Your task to perform on an android device: turn notification dots off Image 0: 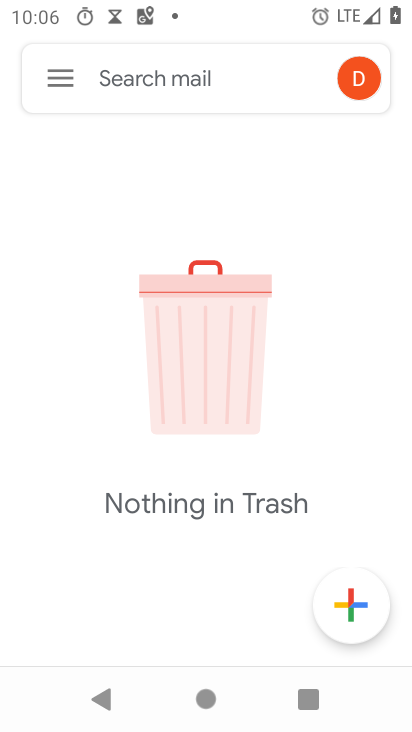
Step 0: press home button
Your task to perform on an android device: turn notification dots off Image 1: 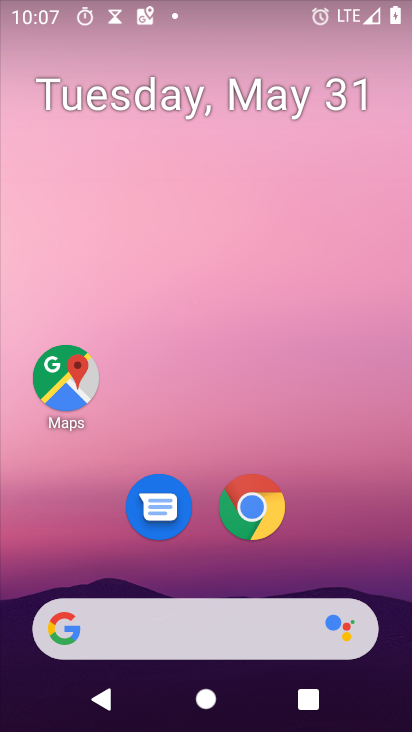
Step 1: drag from (13, 656) to (210, 155)
Your task to perform on an android device: turn notification dots off Image 2: 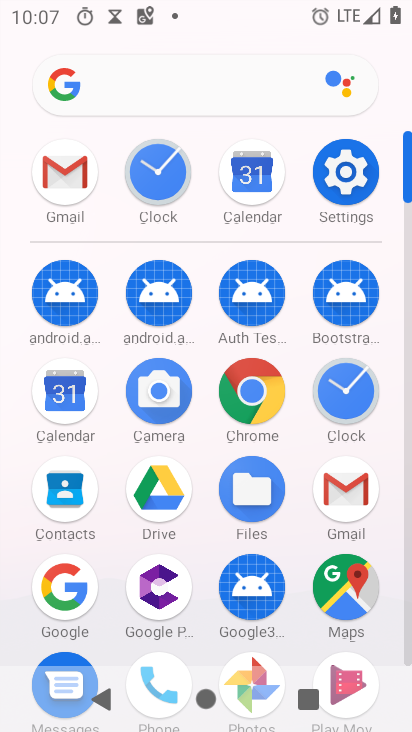
Step 2: click (331, 172)
Your task to perform on an android device: turn notification dots off Image 3: 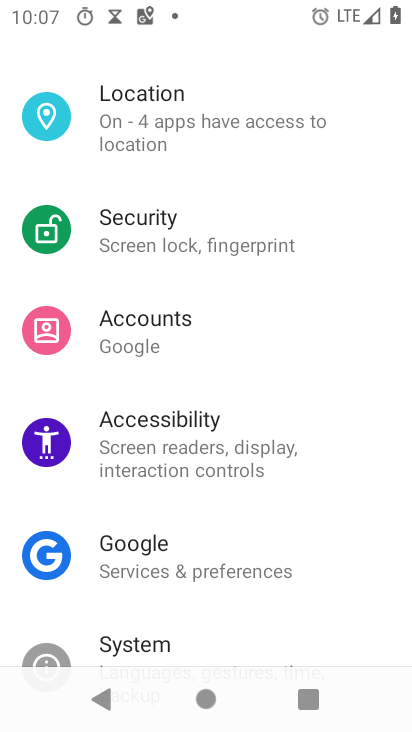
Step 3: drag from (198, 85) to (169, 504)
Your task to perform on an android device: turn notification dots off Image 4: 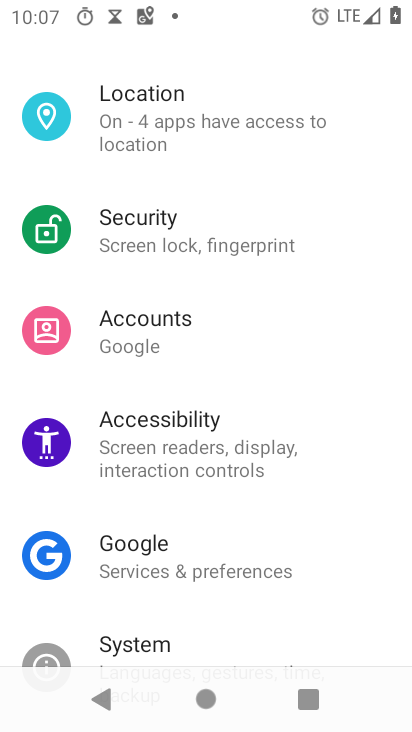
Step 4: drag from (180, 124) to (185, 605)
Your task to perform on an android device: turn notification dots off Image 5: 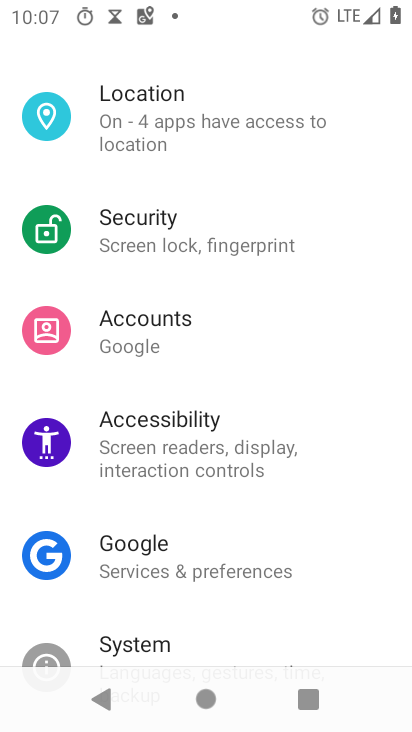
Step 5: drag from (339, 119) to (278, 563)
Your task to perform on an android device: turn notification dots off Image 6: 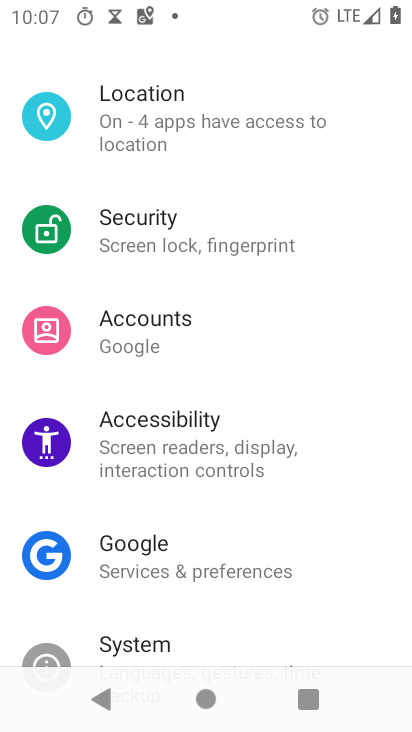
Step 6: drag from (92, 116) to (76, 528)
Your task to perform on an android device: turn notification dots off Image 7: 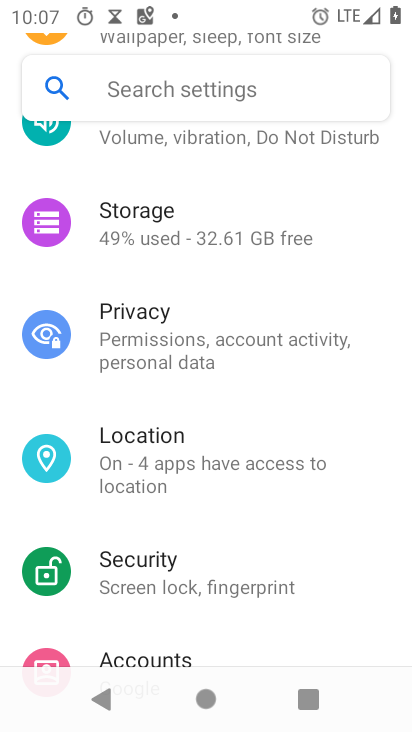
Step 7: drag from (174, 144) to (176, 528)
Your task to perform on an android device: turn notification dots off Image 8: 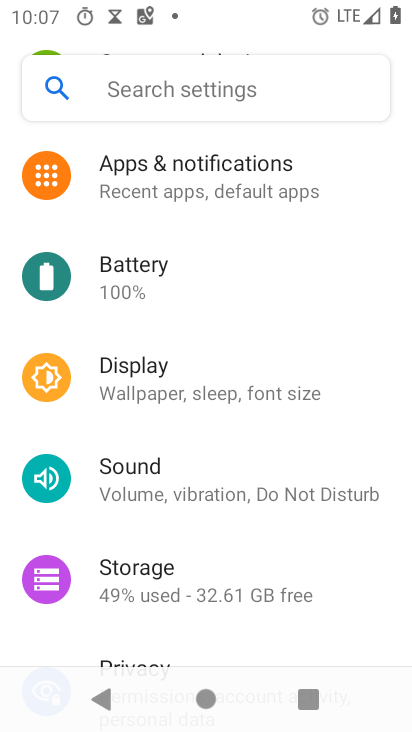
Step 8: click (147, 184)
Your task to perform on an android device: turn notification dots off Image 9: 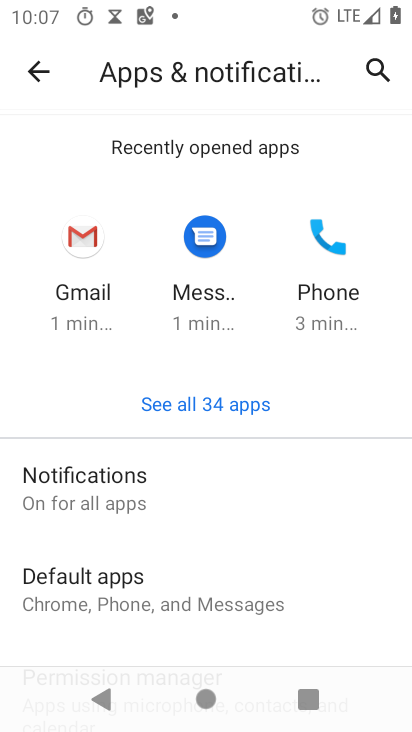
Step 9: click (90, 491)
Your task to perform on an android device: turn notification dots off Image 10: 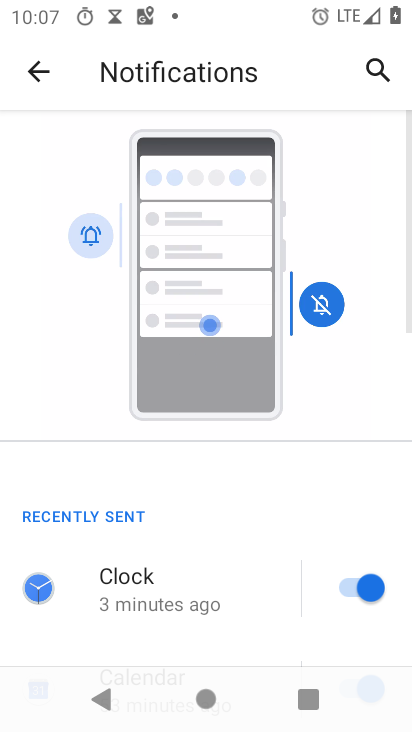
Step 10: drag from (0, 602) to (185, 22)
Your task to perform on an android device: turn notification dots off Image 11: 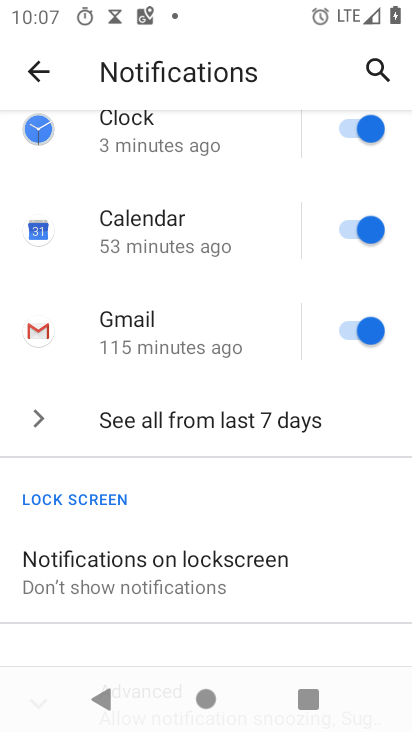
Step 11: drag from (9, 550) to (274, 93)
Your task to perform on an android device: turn notification dots off Image 12: 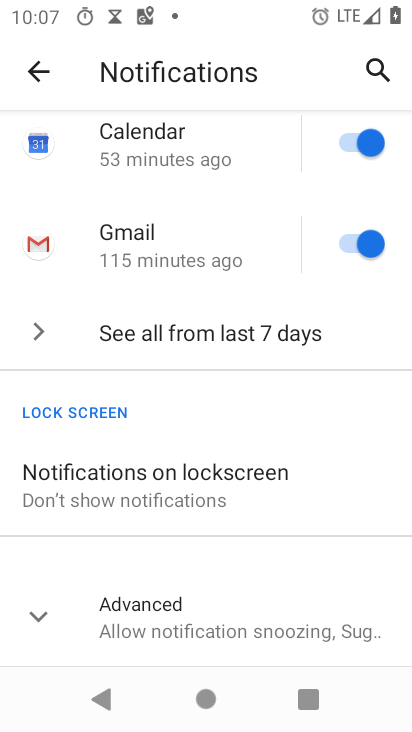
Step 12: click (236, 619)
Your task to perform on an android device: turn notification dots off Image 13: 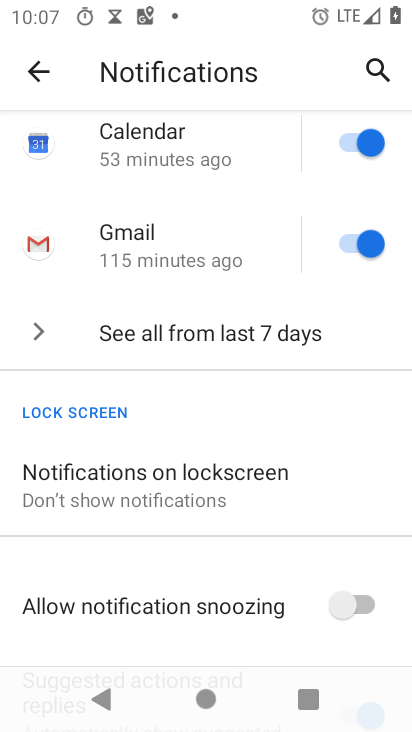
Step 13: drag from (48, 367) to (179, 122)
Your task to perform on an android device: turn notification dots off Image 14: 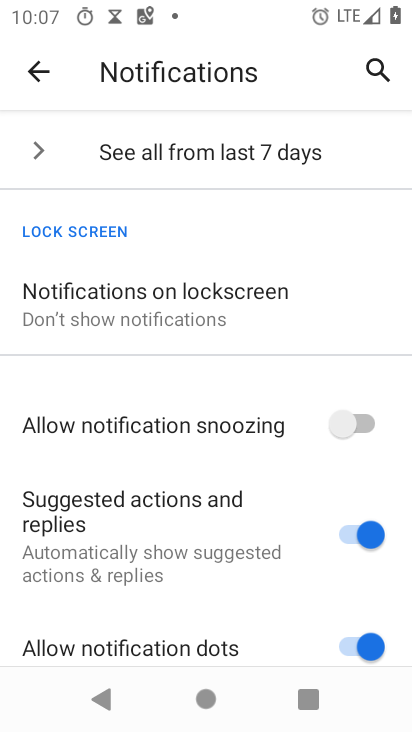
Step 14: click (368, 636)
Your task to perform on an android device: turn notification dots off Image 15: 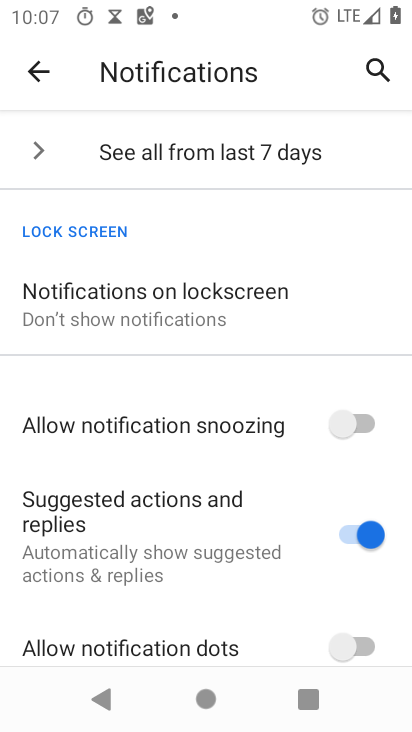
Step 15: task complete